Your task to perform on an android device: choose inbox layout in the gmail app Image 0: 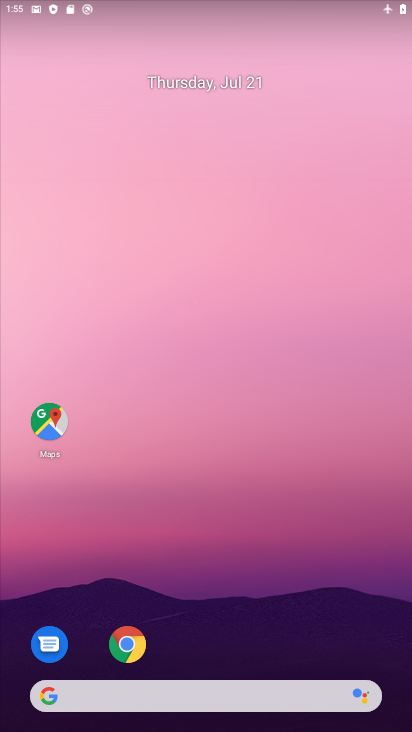
Step 0: drag from (271, 661) to (146, 148)
Your task to perform on an android device: choose inbox layout in the gmail app Image 1: 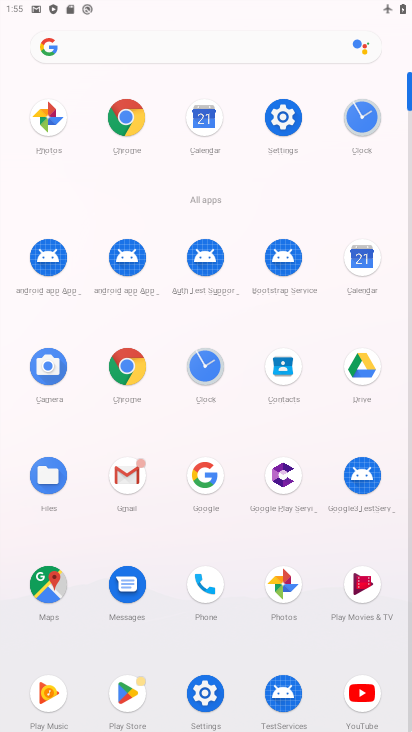
Step 1: click (128, 481)
Your task to perform on an android device: choose inbox layout in the gmail app Image 2: 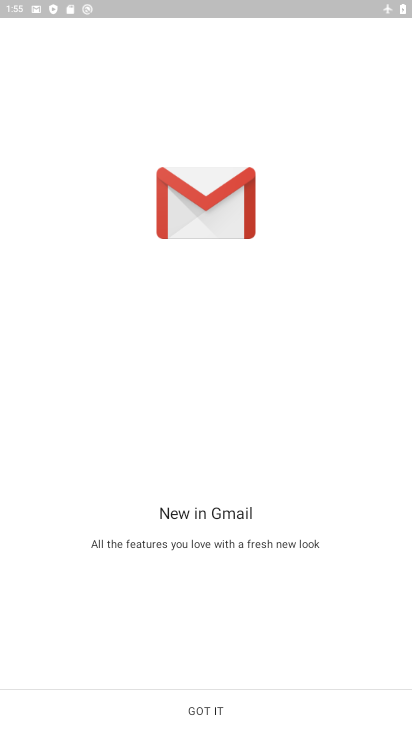
Step 2: click (198, 718)
Your task to perform on an android device: choose inbox layout in the gmail app Image 3: 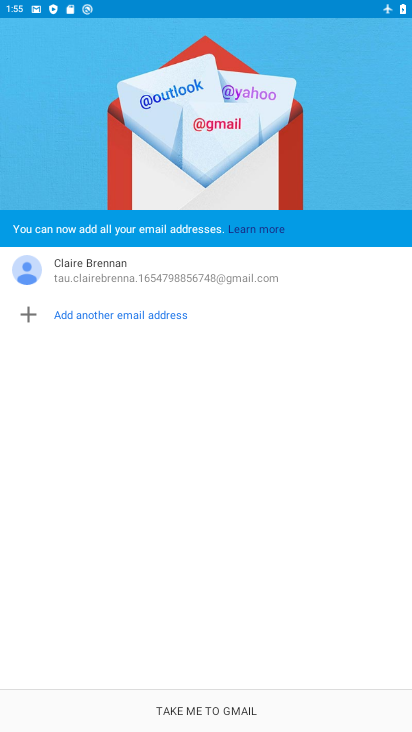
Step 3: click (198, 718)
Your task to perform on an android device: choose inbox layout in the gmail app Image 4: 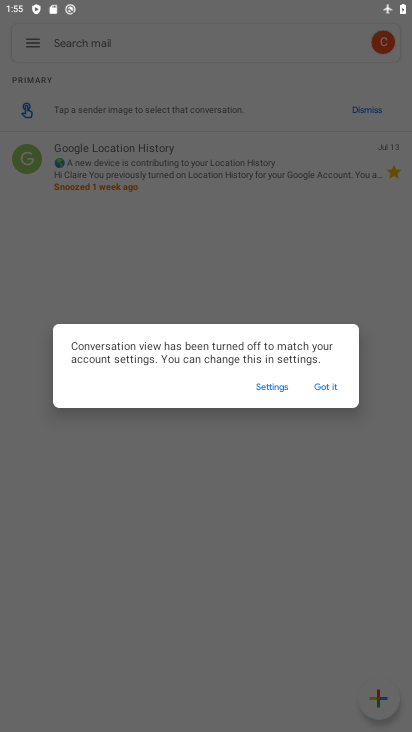
Step 4: click (324, 398)
Your task to perform on an android device: choose inbox layout in the gmail app Image 5: 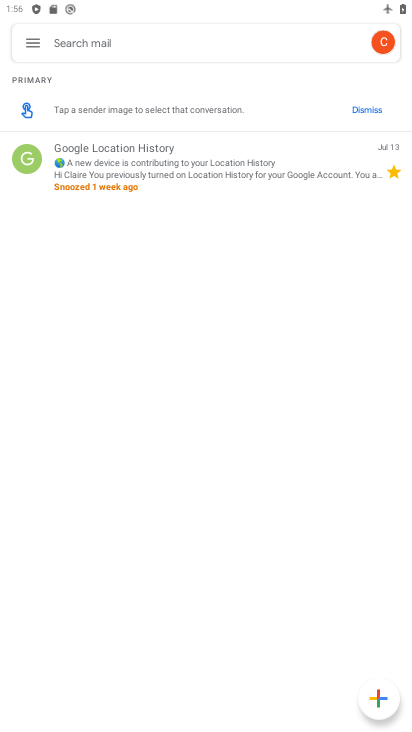
Step 5: click (29, 42)
Your task to perform on an android device: choose inbox layout in the gmail app Image 6: 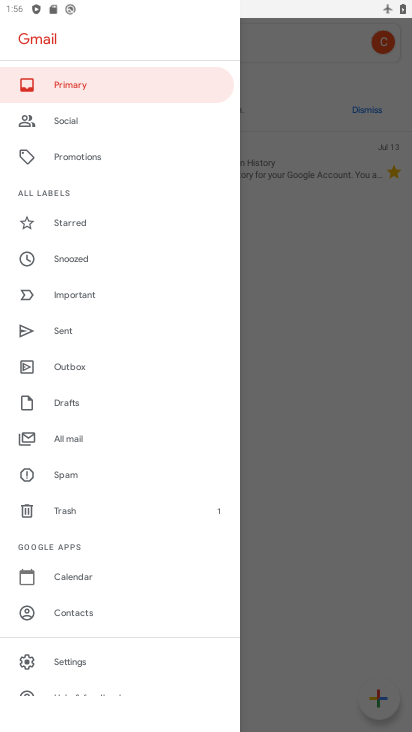
Step 6: click (94, 666)
Your task to perform on an android device: choose inbox layout in the gmail app Image 7: 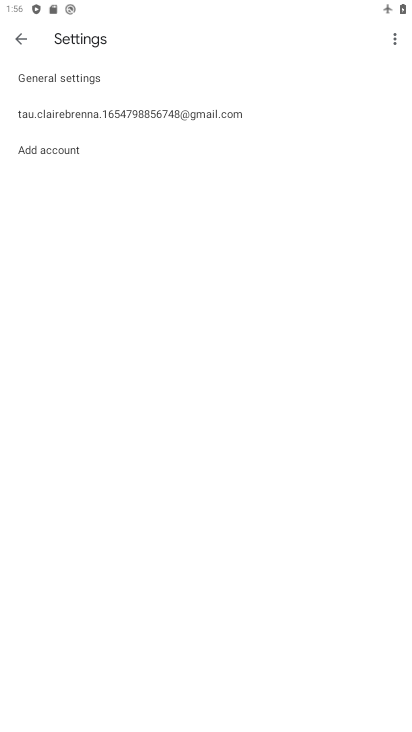
Step 7: click (166, 115)
Your task to perform on an android device: choose inbox layout in the gmail app Image 8: 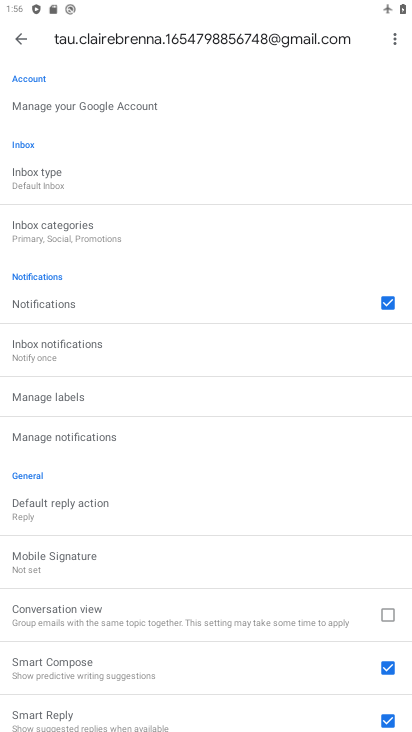
Step 8: click (133, 183)
Your task to perform on an android device: choose inbox layout in the gmail app Image 9: 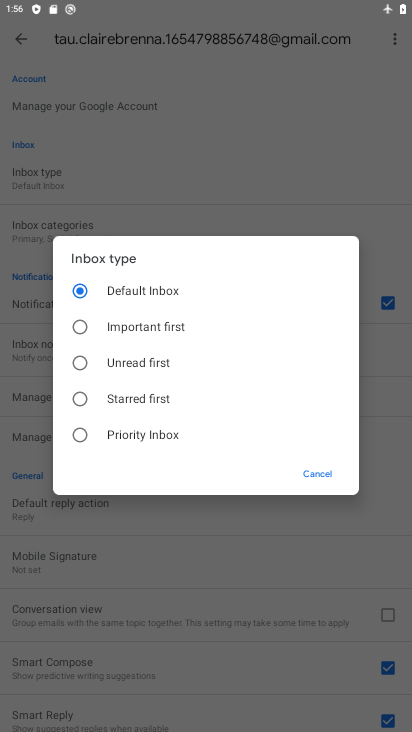
Step 9: click (142, 325)
Your task to perform on an android device: choose inbox layout in the gmail app Image 10: 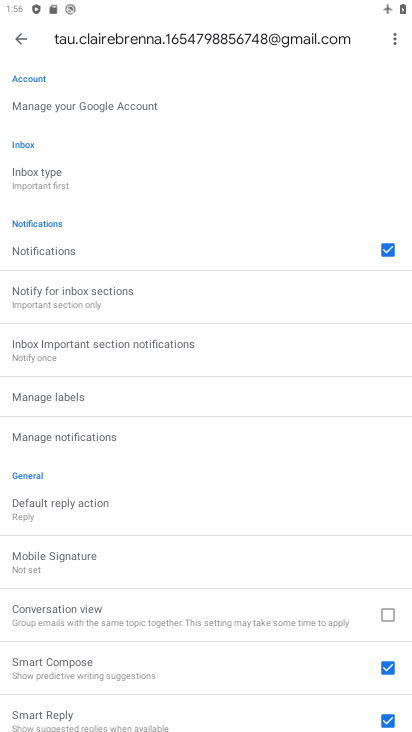
Step 10: task complete